Your task to perform on an android device: open app "Truecaller" (install if not already installed) and enter user name: "coauthor@gmail.com" and password: "quadrangle" Image 0: 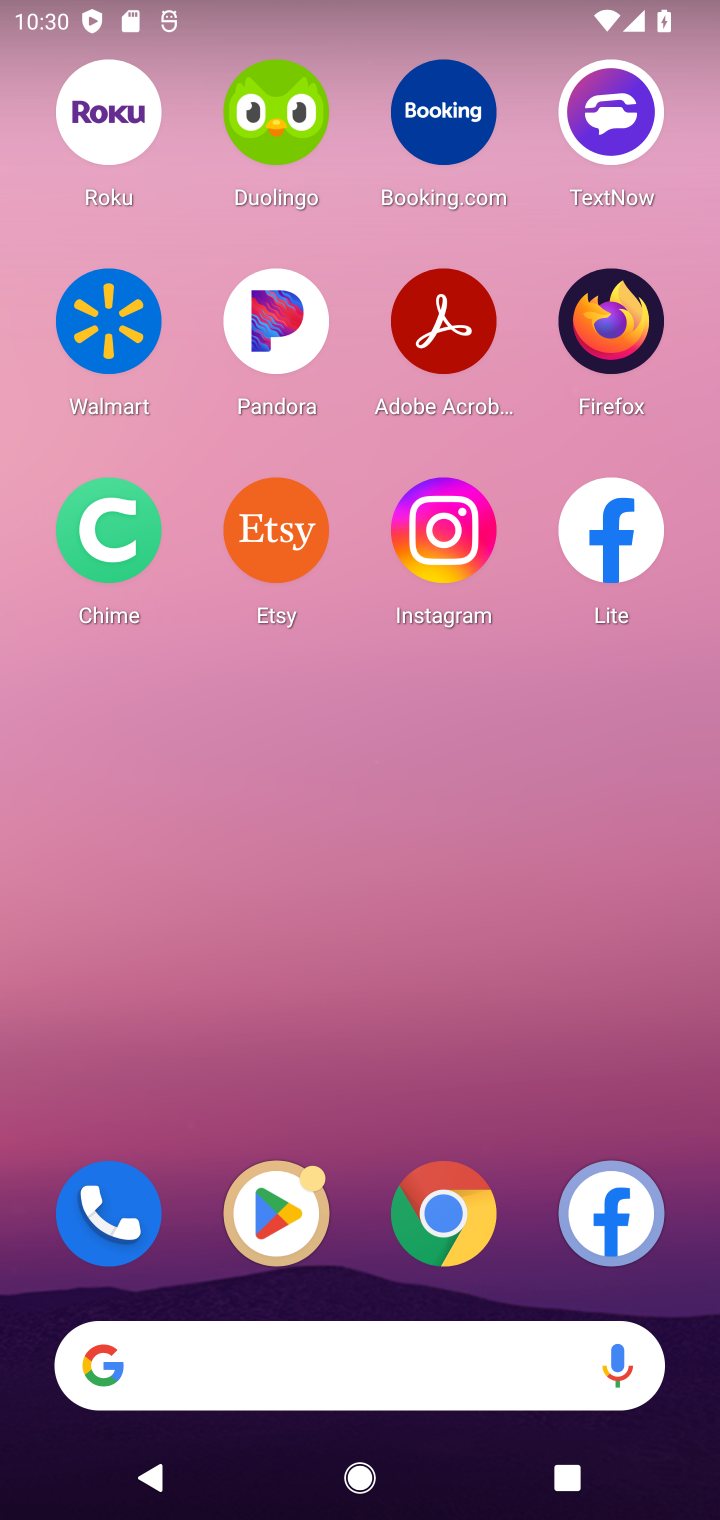
Step 0: click (275, 1216)
Your task to perform on an android device: open app "Truecaller" (install if not already installed) and enter user name: "coauthor@gmail.com" and password: "quadrangle" Image 1: 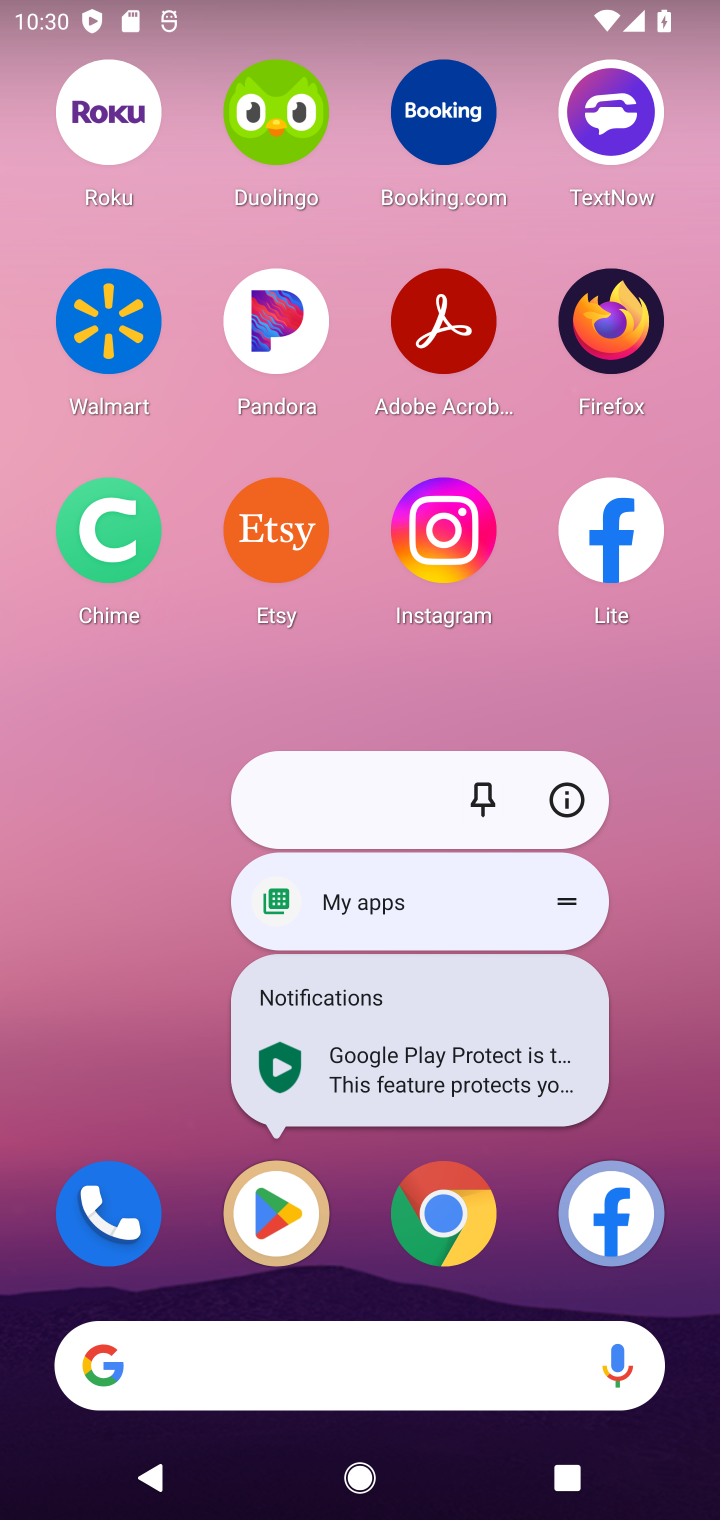
Step 1: click (273, 1214)
Your task to perform on an android device: open app "Truecaller" (install if not already installed) and enter user name: "coauthor@gmail.com" and password: "quadrangle" Image 2: 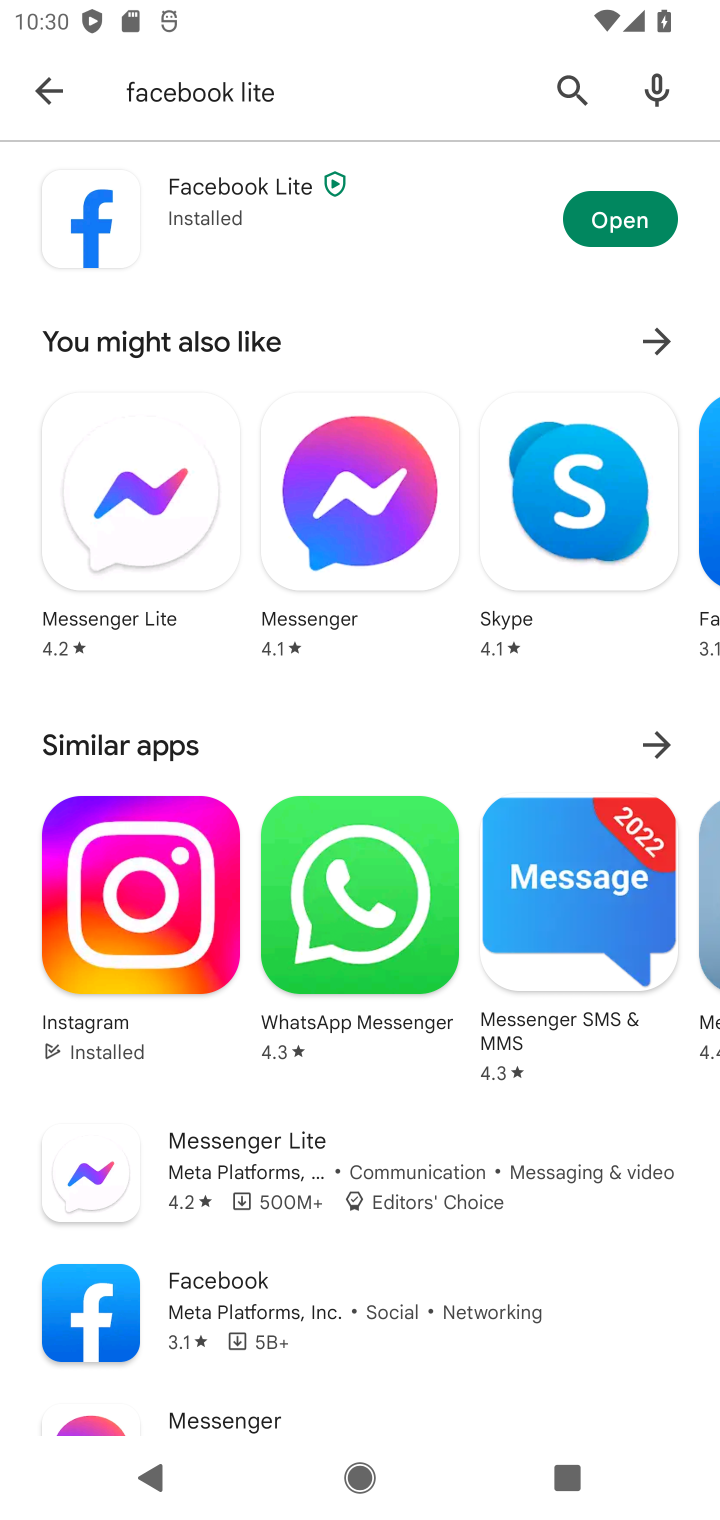
Step 2: click (346, 84)
Your task to perform on an android device: open app "Truecaller" (install if not already installed) and enter user name: "coauthor@gmail.com" and password: "quadrangle" Image 3: 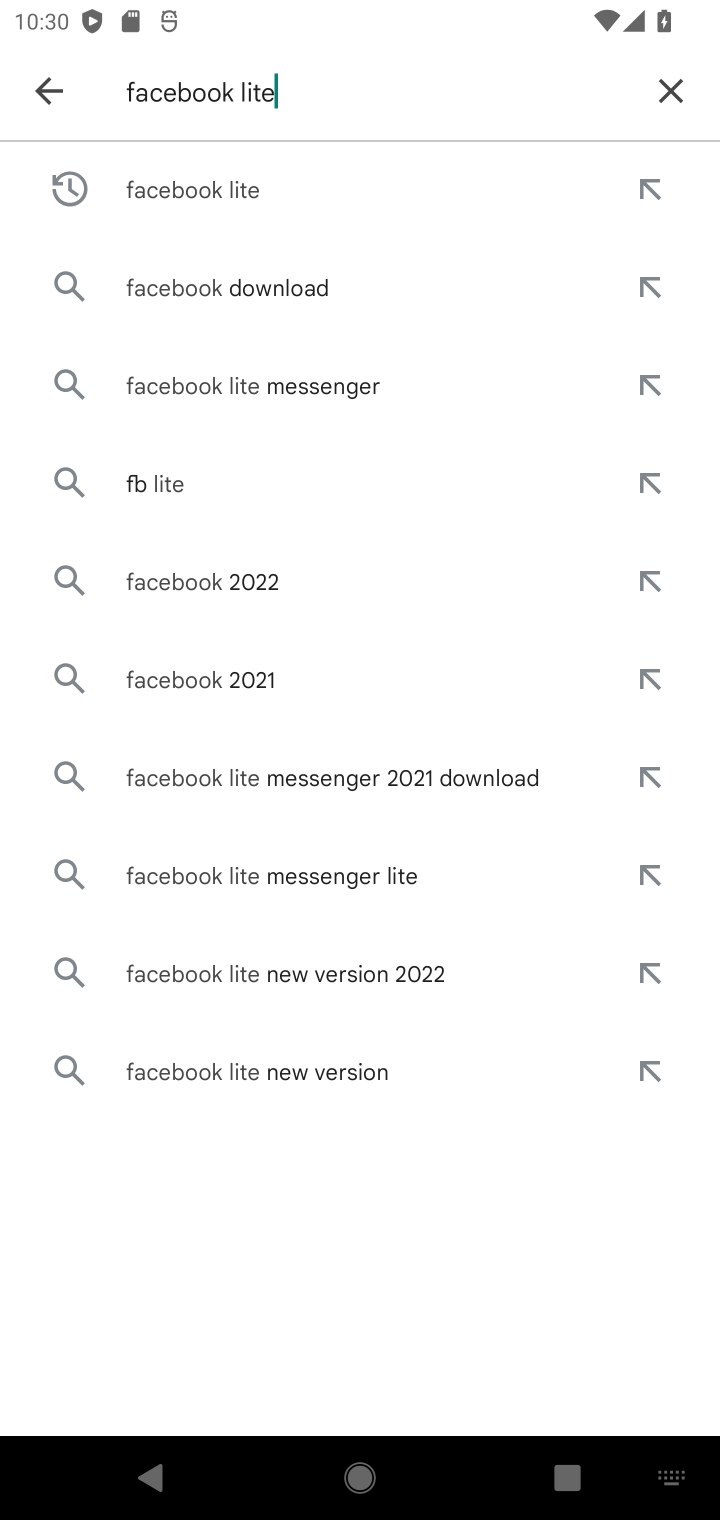
Step 3: click (678, 90)
Your task to perform on an android device: open app "Truecaller" (install if not already installed) and enter user name: "coauthor@gmail.com" and password: "quadrangle" Image 4: 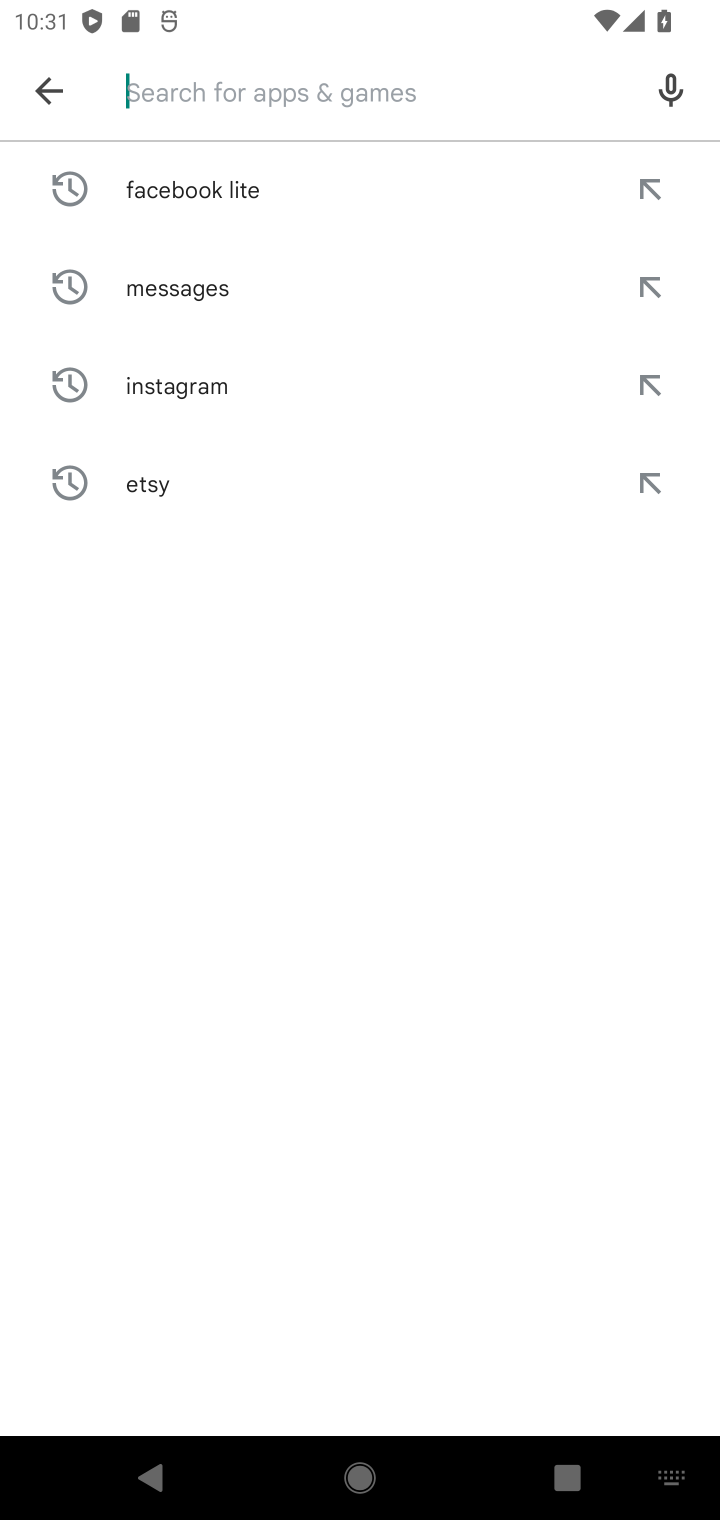
Step 4: type "truecaller"
Your task to perform on an android device: open app "Truecaller" (install if not already installed) and enter user name: "coauthor@gmail.com" and password: "quadrangle" Image 5: 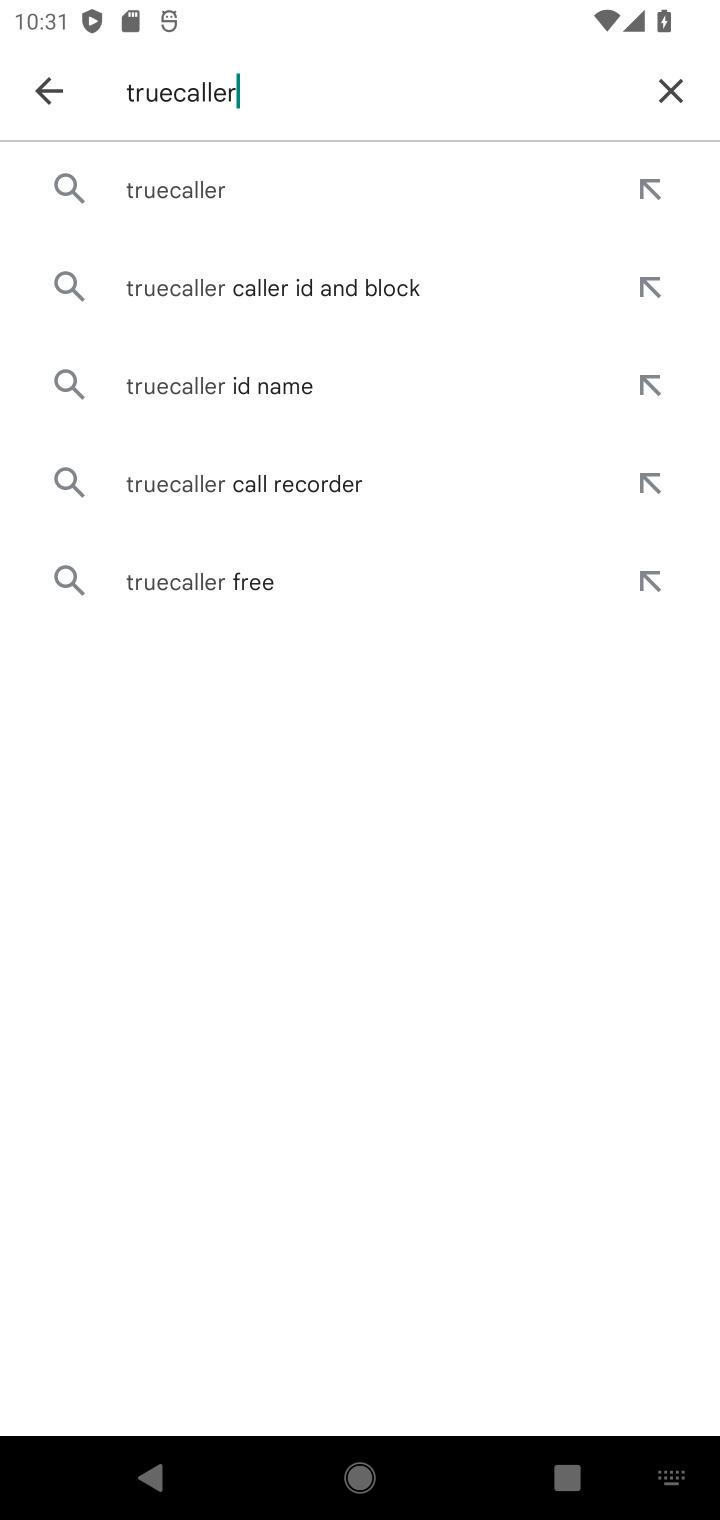
Step 5: click (239, 175)
Your task to perform on an android device: open app "Truecaller" (install if not already installed) and enter user name: "coauthor@gmail.com" and password: "quadrangle" Image 6: 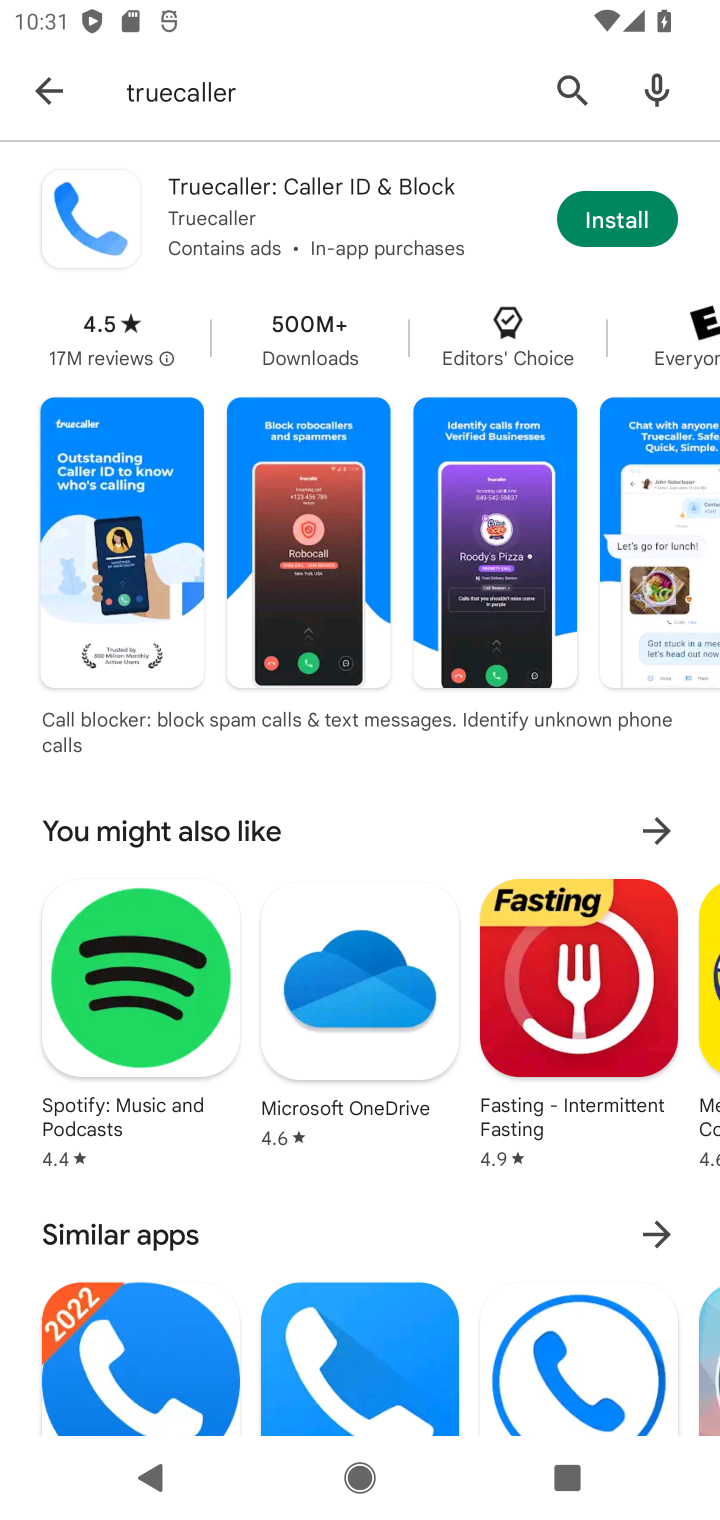
Step 6: click (629, 214)
Your task to perform on an android device: open app "Truecaller" (install if not already installed) and enter user name: "coauthor@gmail.com" and password: "quadrangle" Image 7: 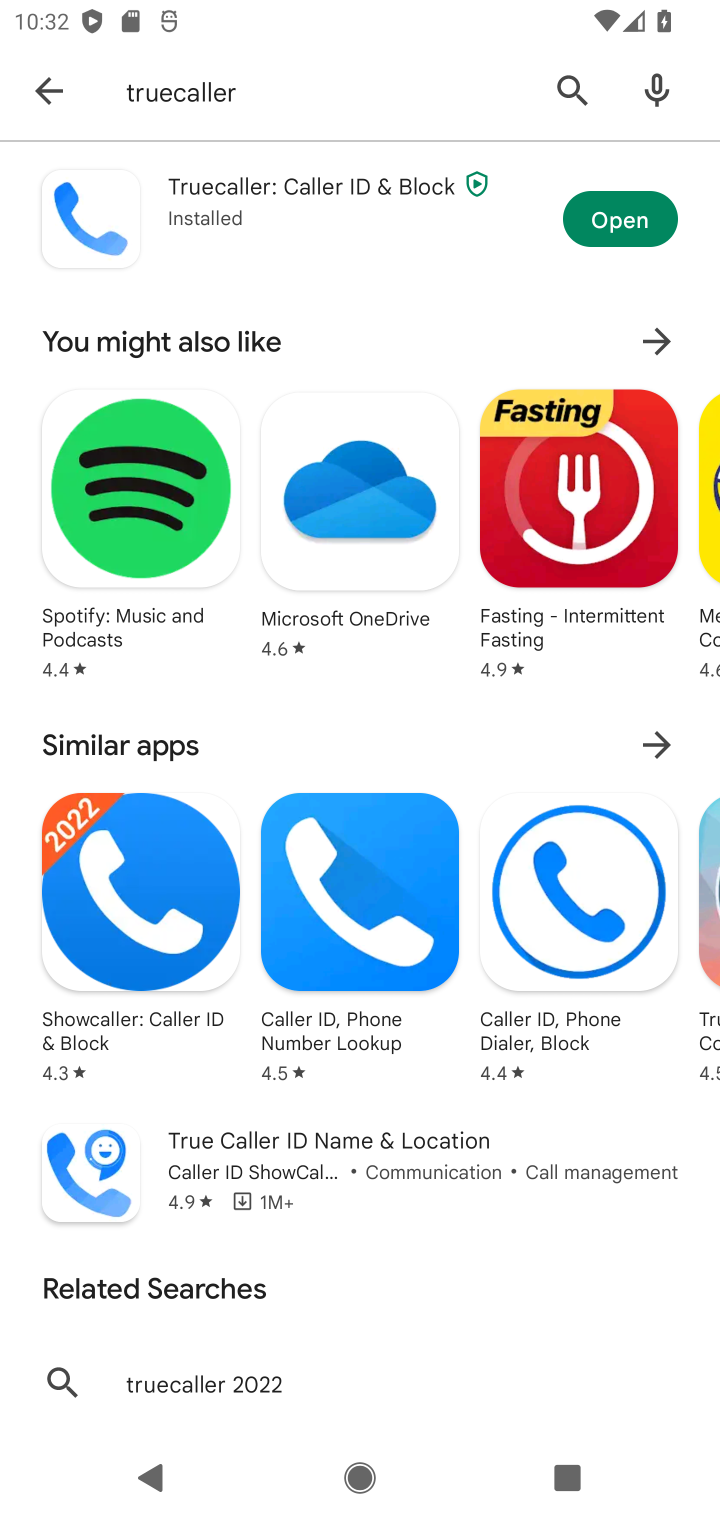
Step 7: click (618, 217)
Your task to perform on an android device: open app "Truecaller" (install if not already installed) and enter user name: "coauthor@gmail.com" and password: "quadrangle" Image 8: 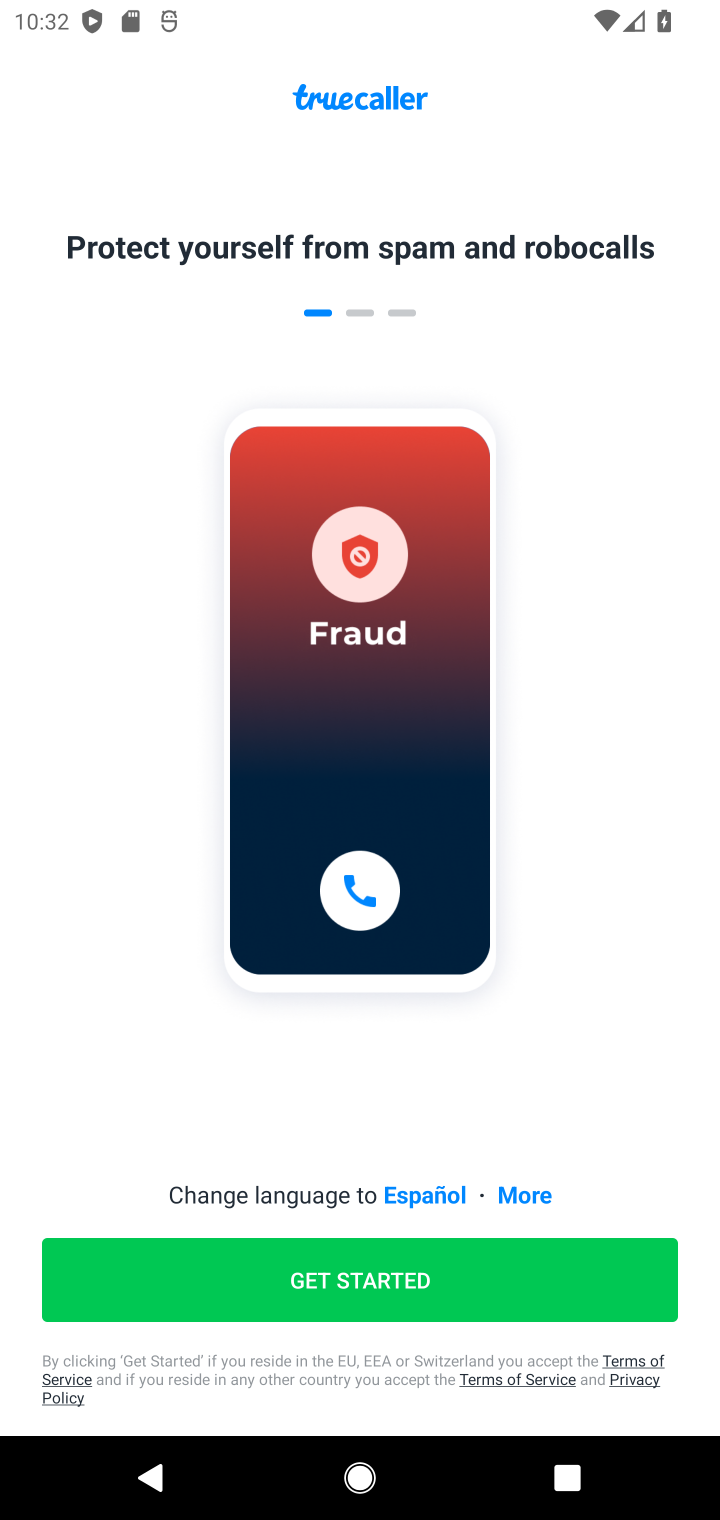
Step 8: click (418, 1233)
Your task to perform on an android device: open app "Truecaller" (install if not already installed) and enter user name: "coauthor@gmail.com" and password: "quadrangle" Image 9: 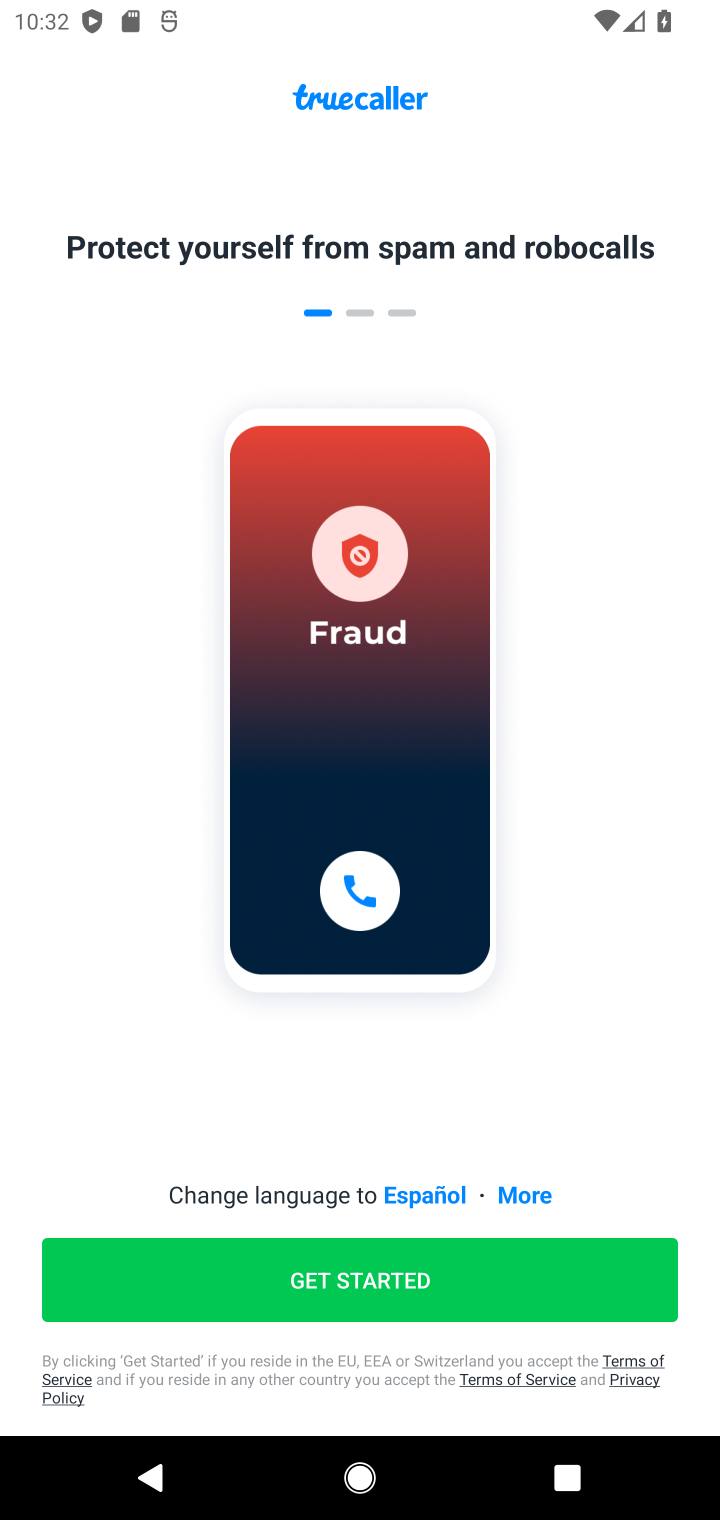
Step 9: click (383, 1262)
Your task to perform on an android device: open app "Truecaller" (install if not already installed) and enter user name: "coauthor@gmail.com" and password: "quadrangle" Image 10: 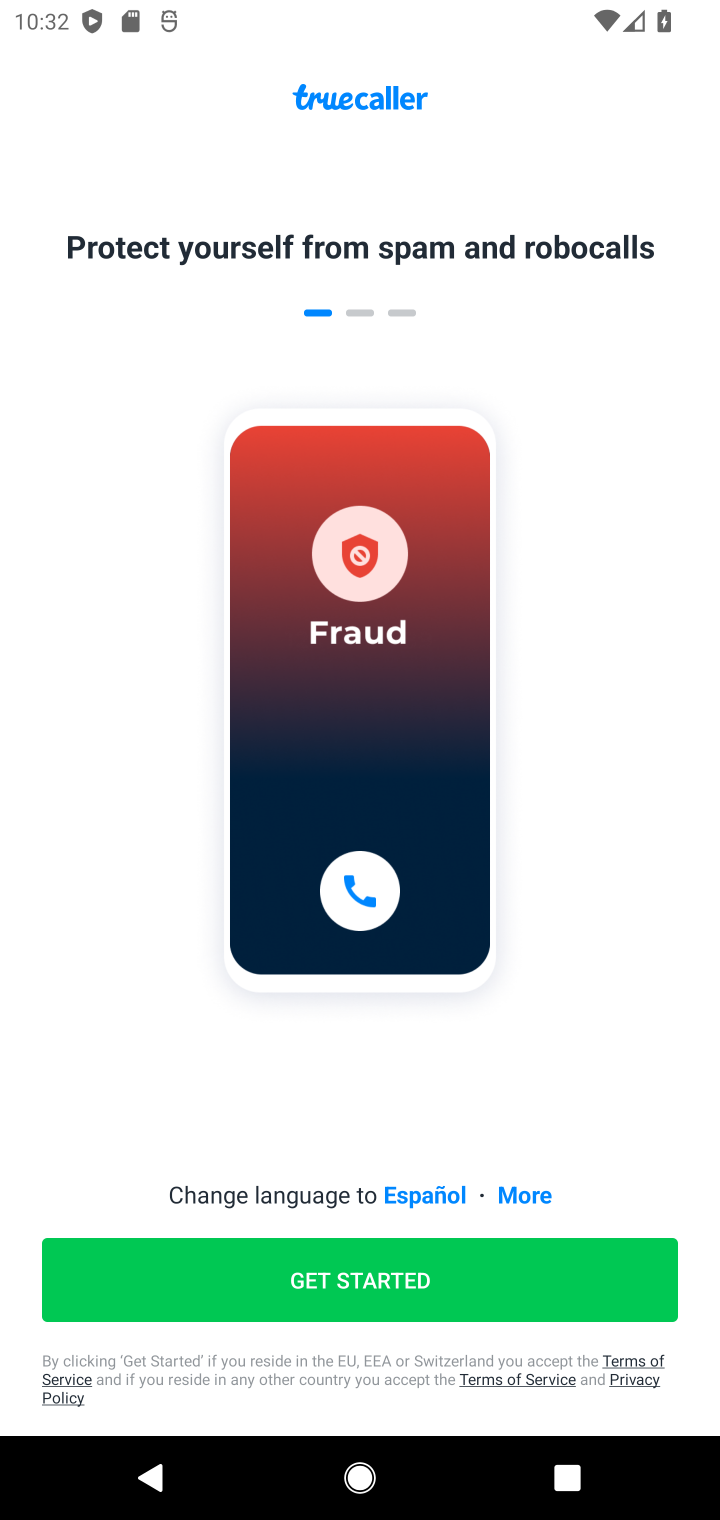
Step 10: click (399, 1266)
Your task to perform on an android device: open app "Truecaller" (install if not already installed) and enter user name: "coauthor@gmail.com" and password: "quadrangle" Image 11: 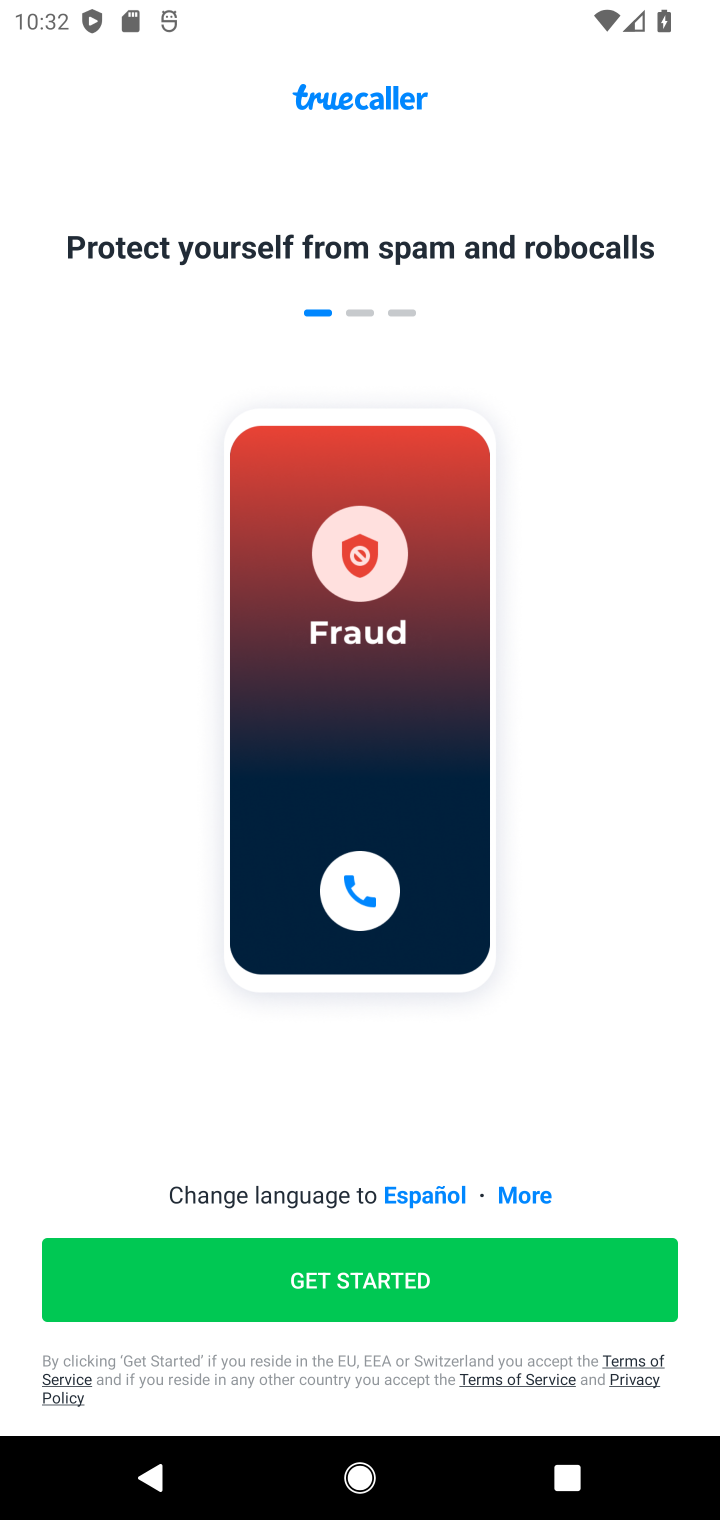
Step 11: click (384, 1252)
Your task to perform on an android device: open app "Truecaller" (install if not already installed) and enter user name: "coauthor@gmail.com" and password: "quadrangle" Image 12: 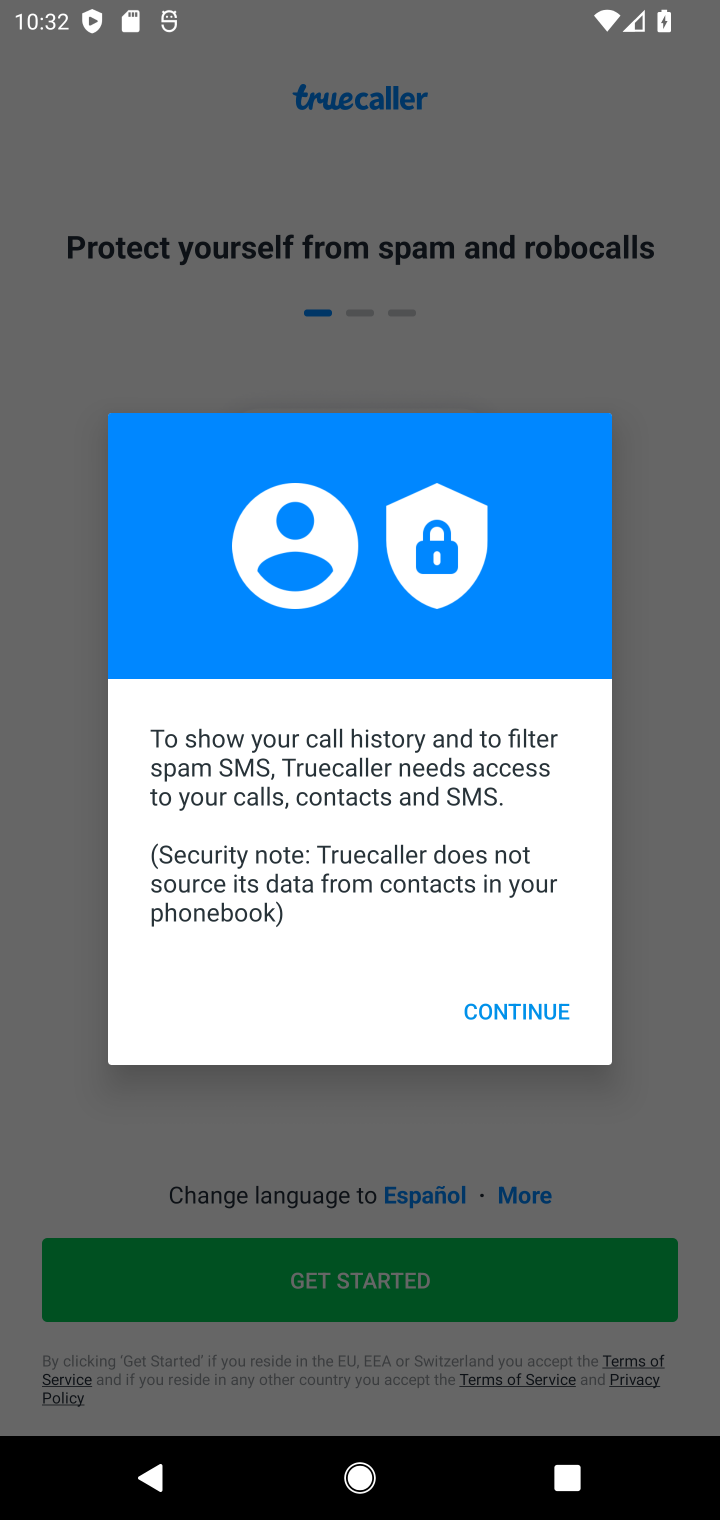
Step 12: click (501, 1020)
Your task to perform on an android device: open app "Truecaller" (install if not already installed) and enter user name: "coauthor@gmail.com" and password: "quadrangle" Image 13: 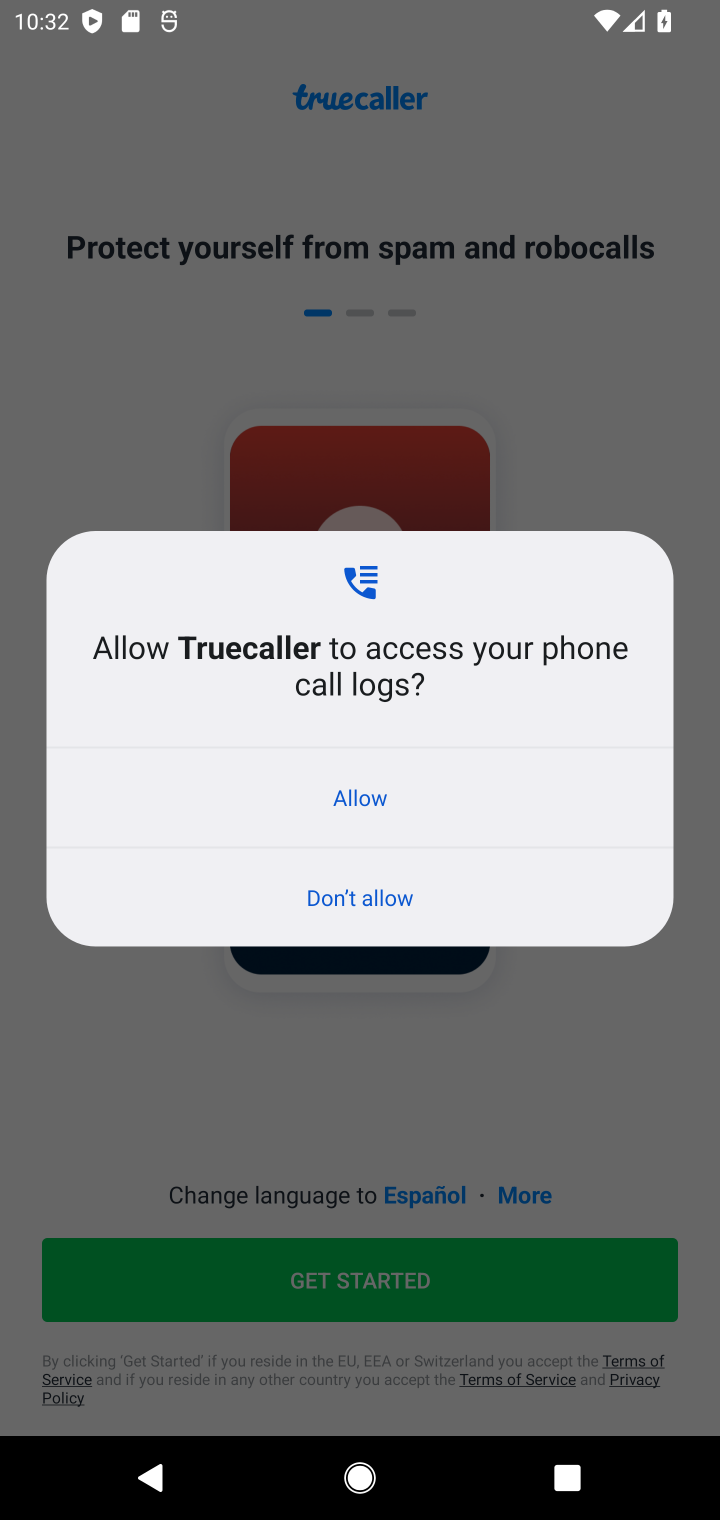
Step 13: click (400, 806)
Your task to perform on an android device: open app "Truecaller" (install if not already installed) and enter user name: "coauthor@gmail.com" and password: "quadrangle" Image 14: 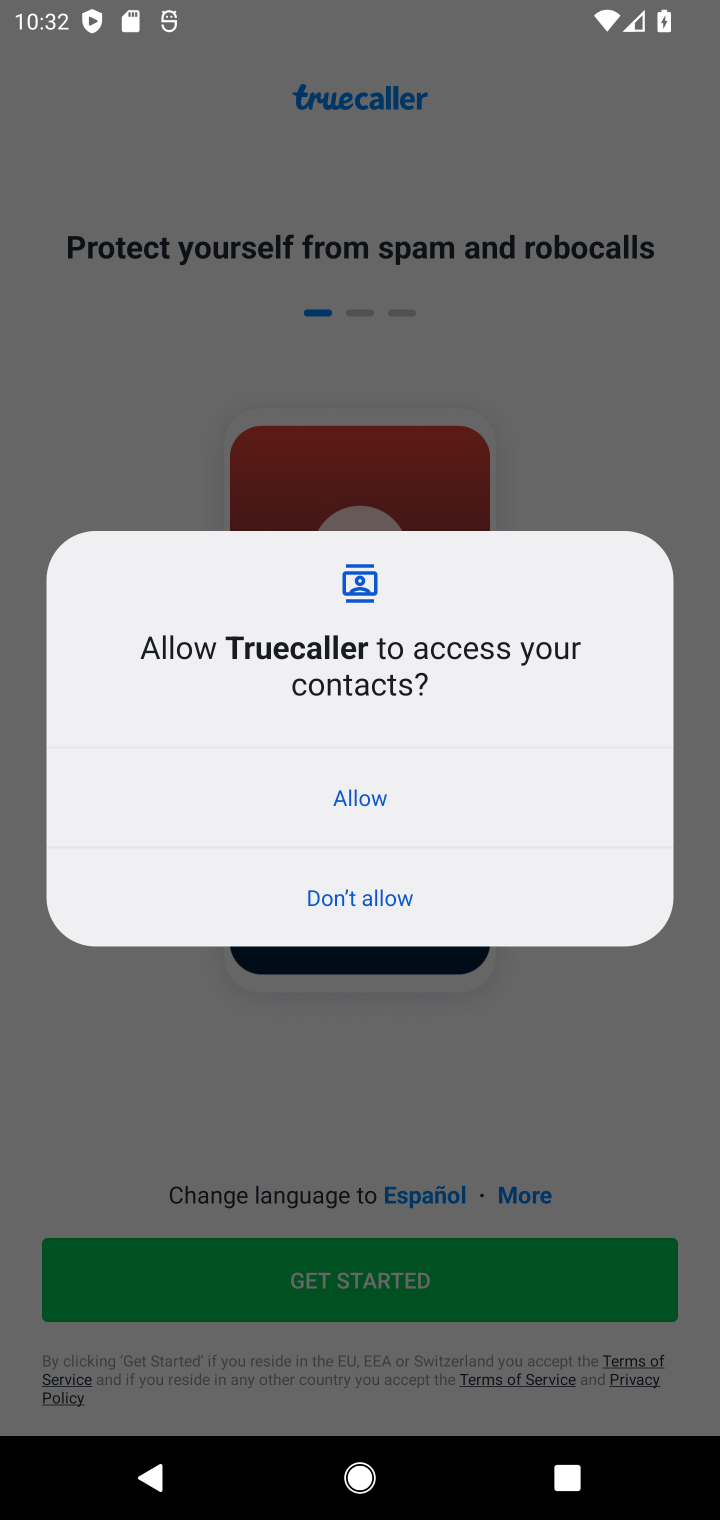
Step 14: click (400, 806)
Your task to perform on an android device: open app "Truecaller" (install if not already installed) and enter user name: "coauthor@gmail.com" and password: "quadrangle" Image 15: 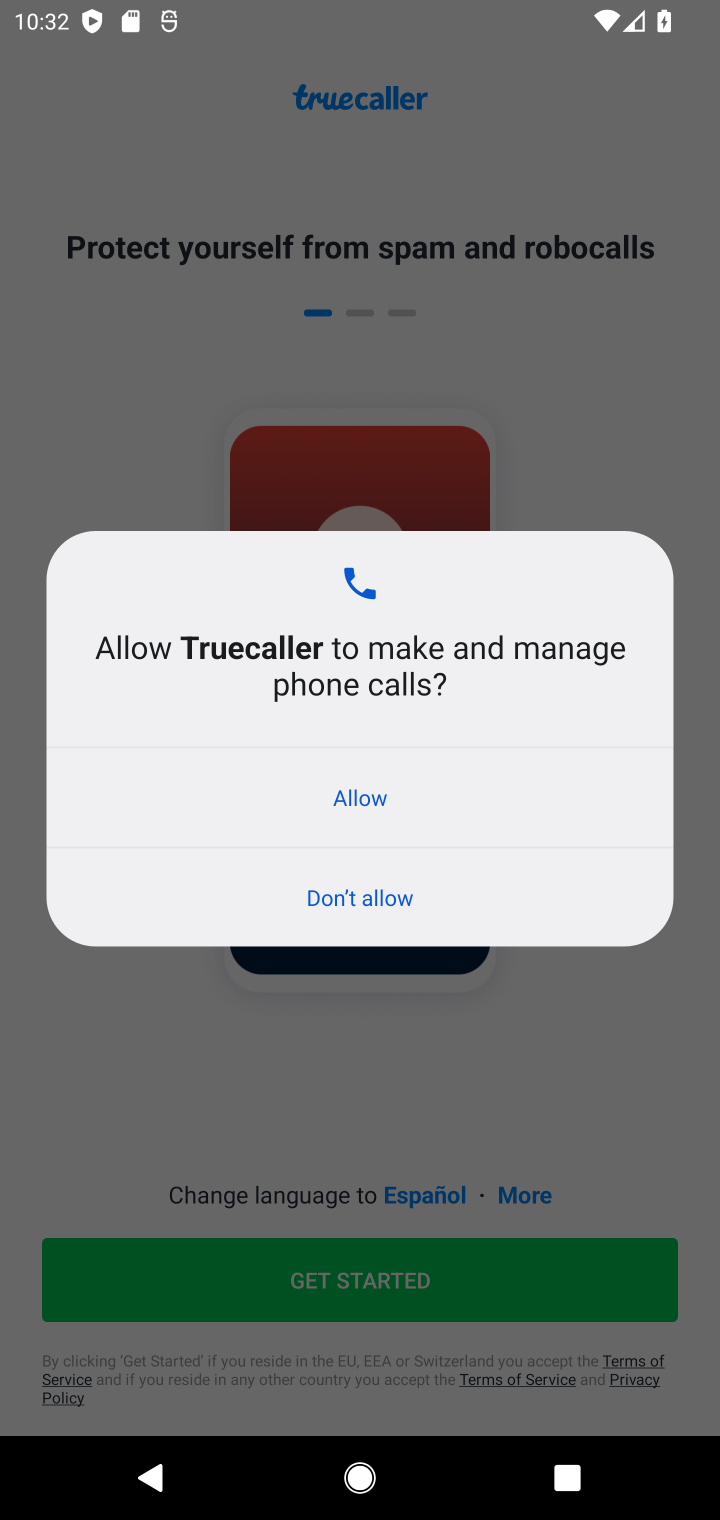
Step 15: click (398, 804)
Your task to perform on an android device: open app "Truecaller" (install if not already installed) and enter user name: "coauthor@gmail.com" and password: "quadrangle" Image 16: 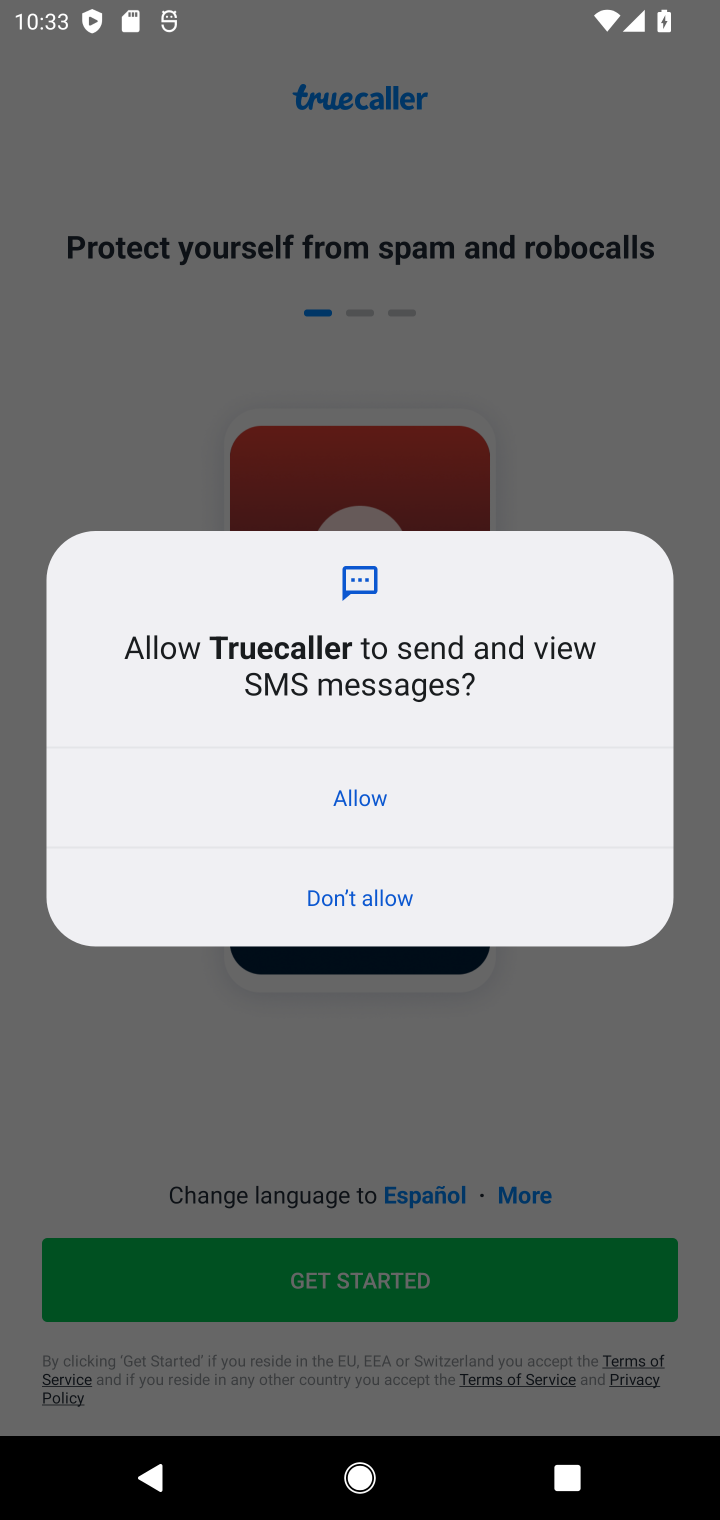
Step 16: click (398, 804)
Your task to perform on an android device: open app "Truecaller" (install if not already installed) and enter user name: "coauthor@gmail.com" and password: "quadrangle" Image 17: 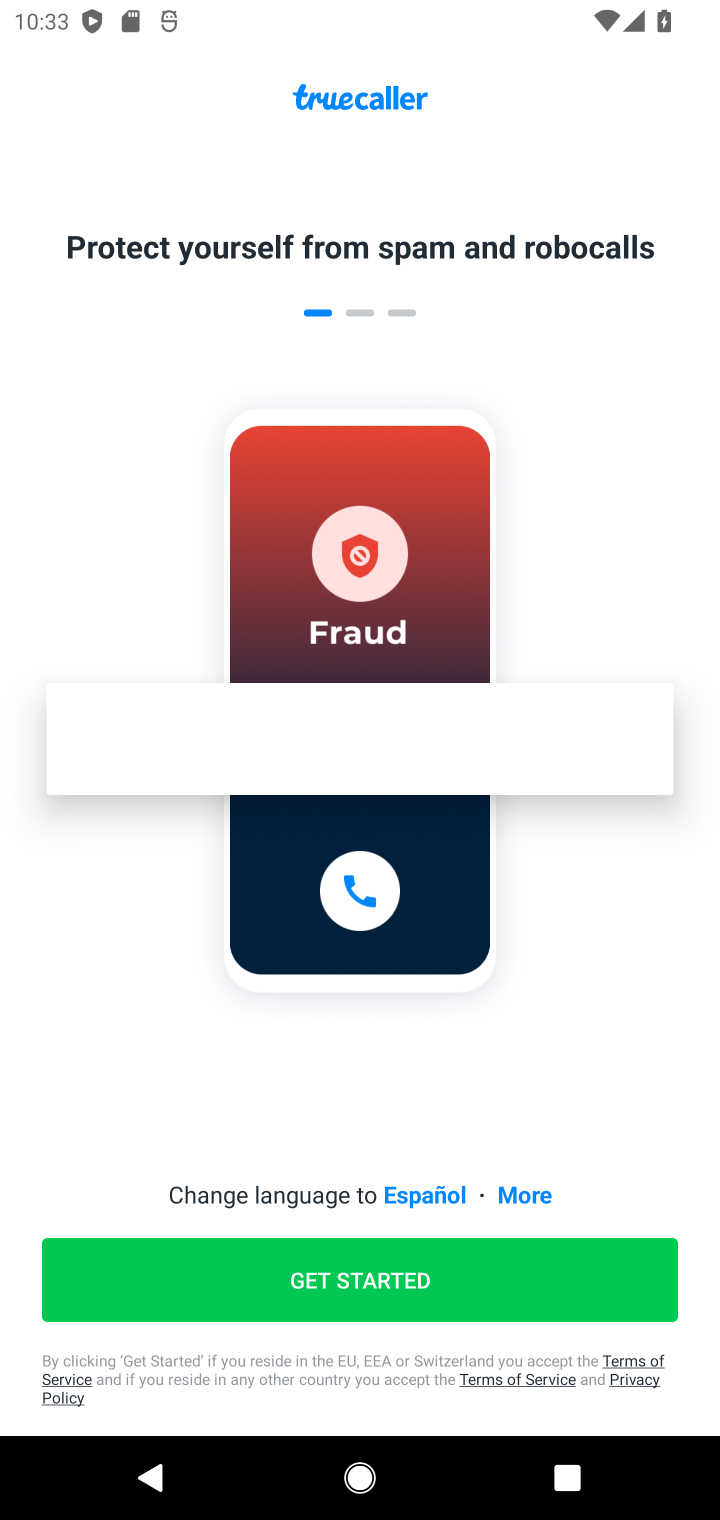
Step 17: click (376, 1282)
Your task to perform on an android device: open app "Truecaller" (install if not already installed) and enter user name: "coauthor@gmail.com" and password: "quadrangle" Image 18: 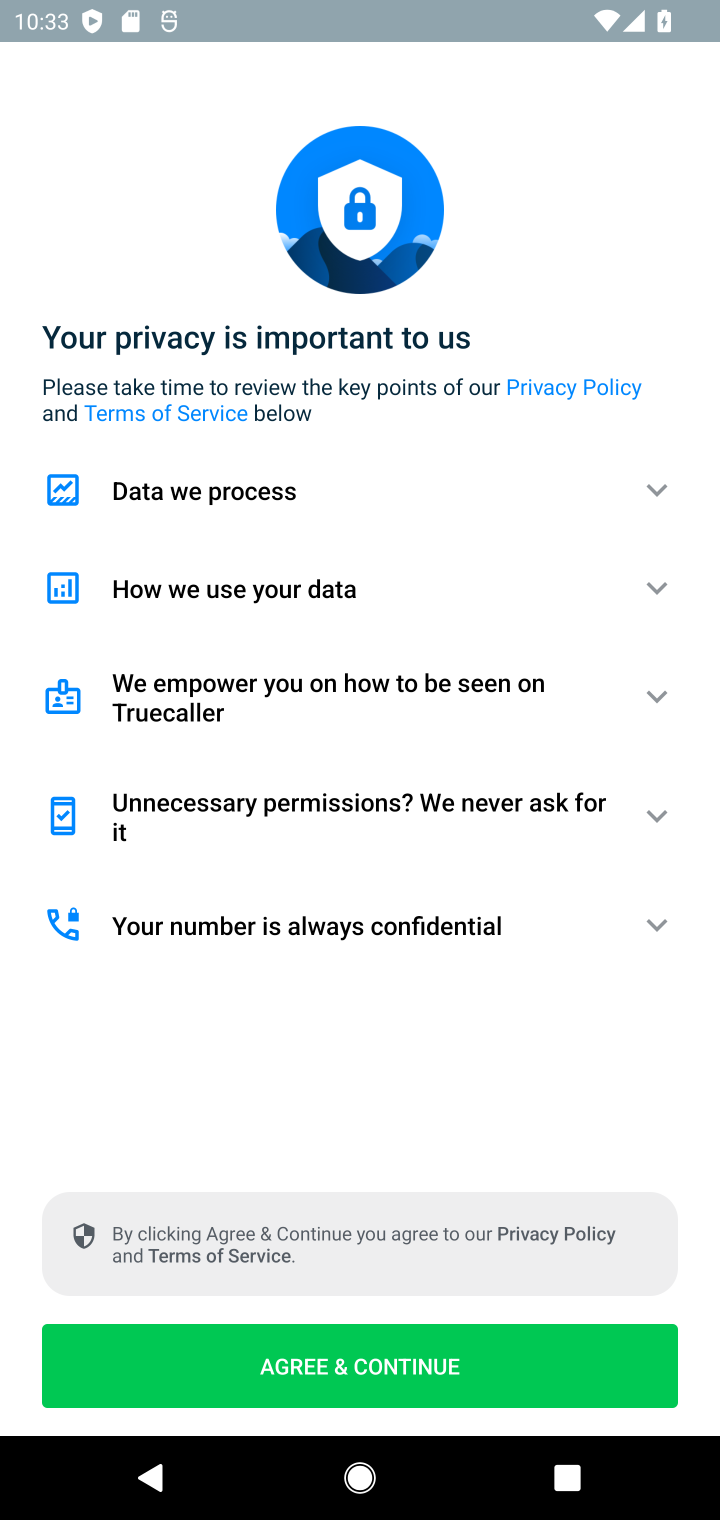
Step 18: click (381, 1375)
Your task to perform on an android device: open app "Truecaller" (install if not already installed) and enter user name: "coauthor@gmail.com" and password: "quadrangle" Image 19: 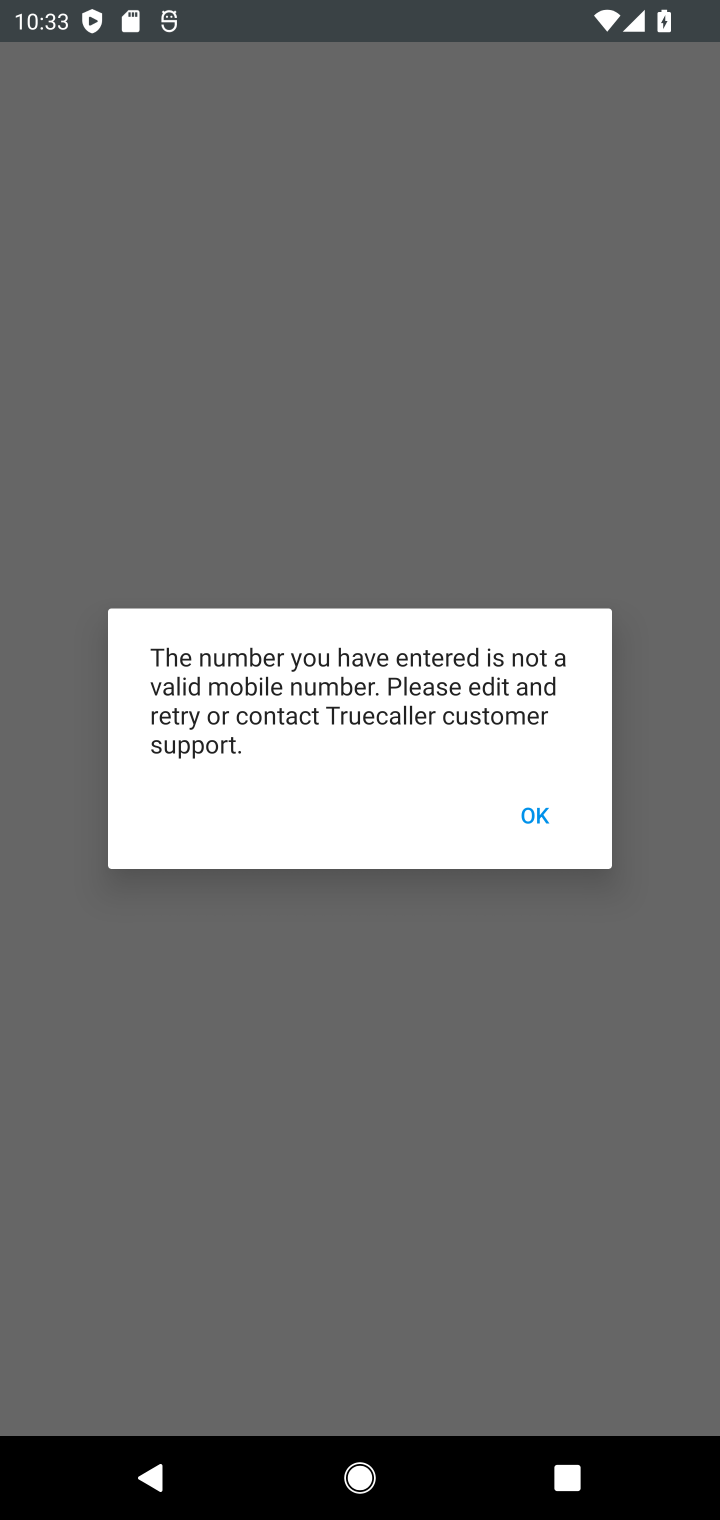
Step 19: click (538, 795)
Your task to perform on an android device: open app "Truecaller" (install if not already installed) and enter user name: "coauthor@gmail.com" and password: "quadrangle" Image 20: 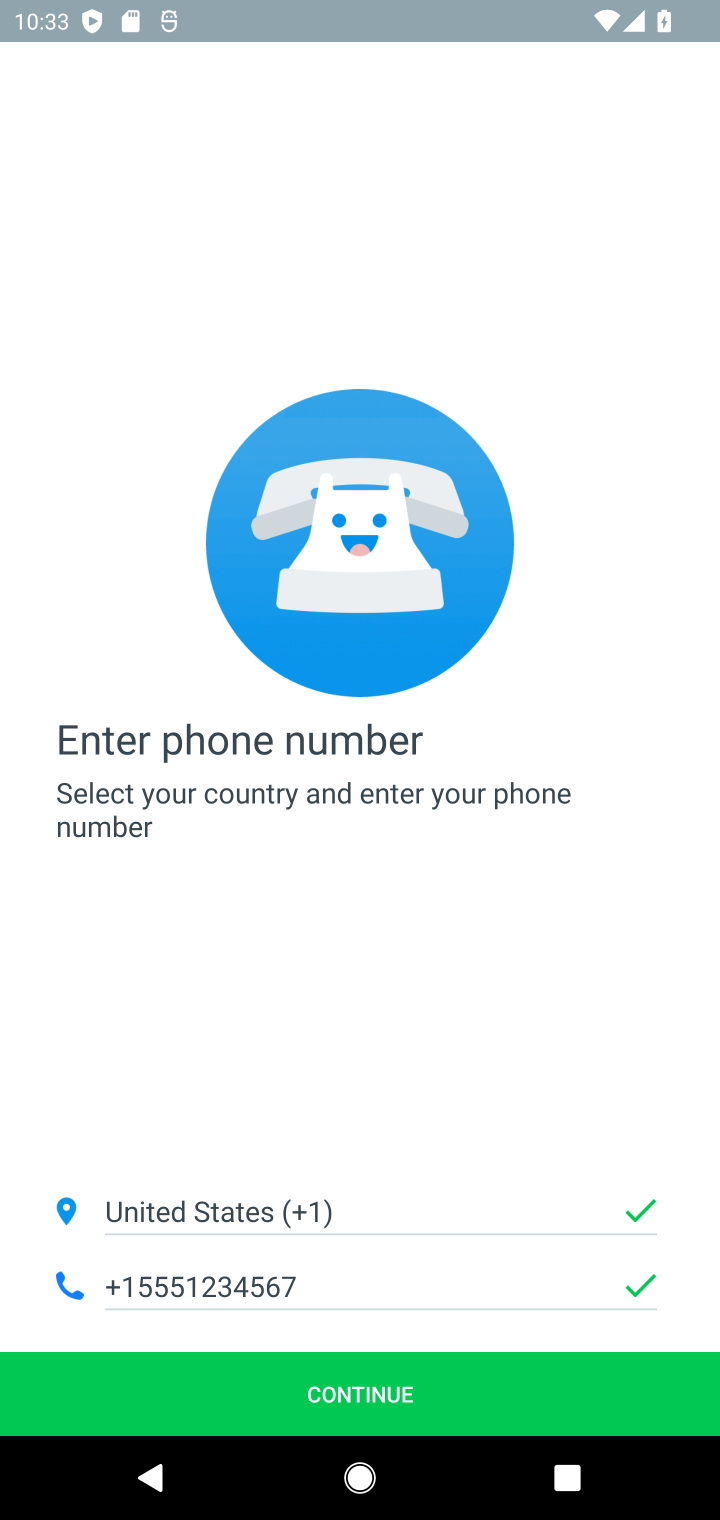
Step 20: task complete